Your task to perform on an android device: Check out the best rated electric trimmers on Lowe's Image 0: 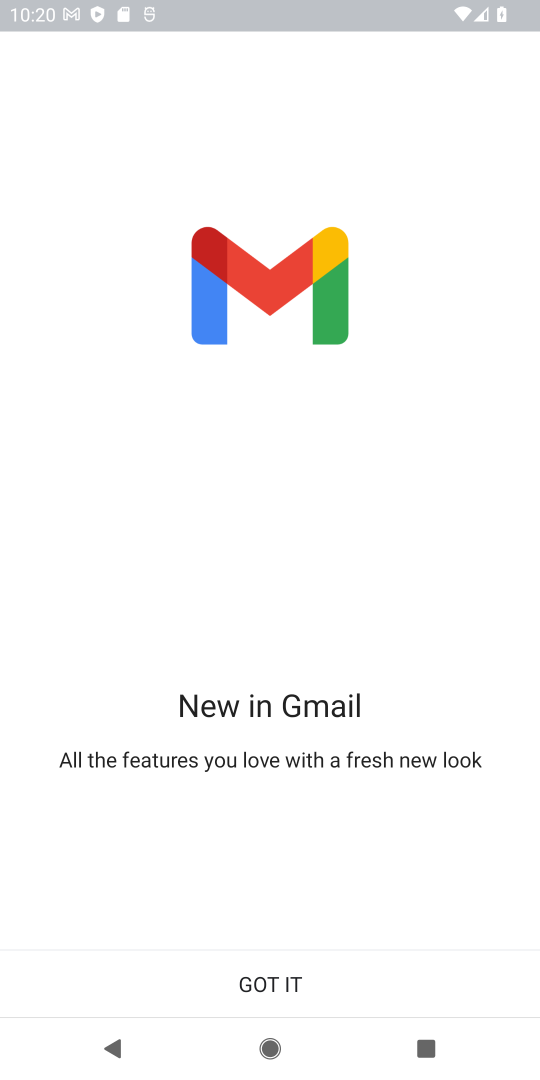
Step 0: press home button
Your task to perform on an android device: Check out the best rated electric trimmers on Lowe's Image 1: 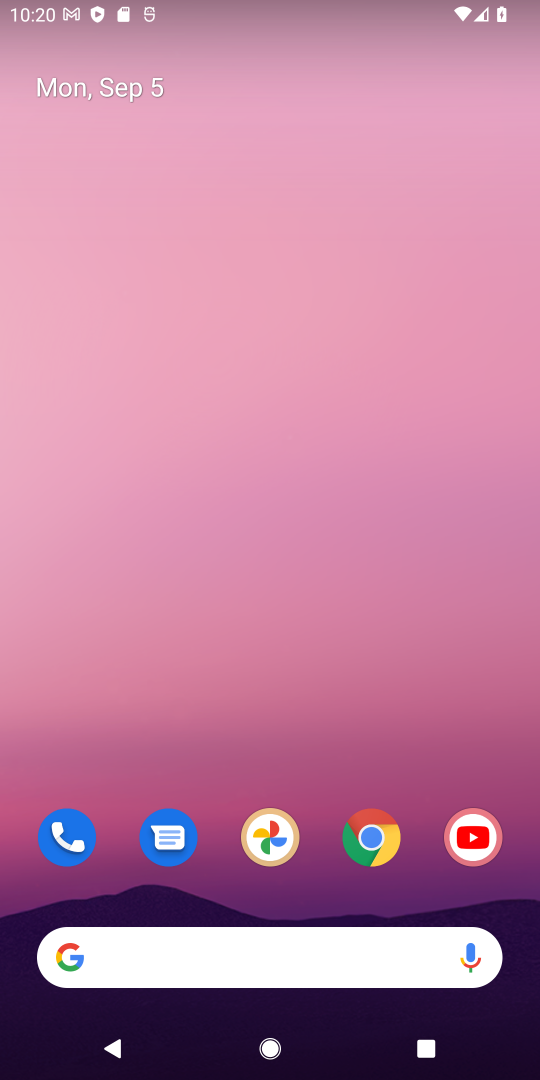
Step 1: drag from (337, 866) to (347, 81)
Your task to perform on an android device: Check out the best rated electric trimmers on Lowe's Image 2: 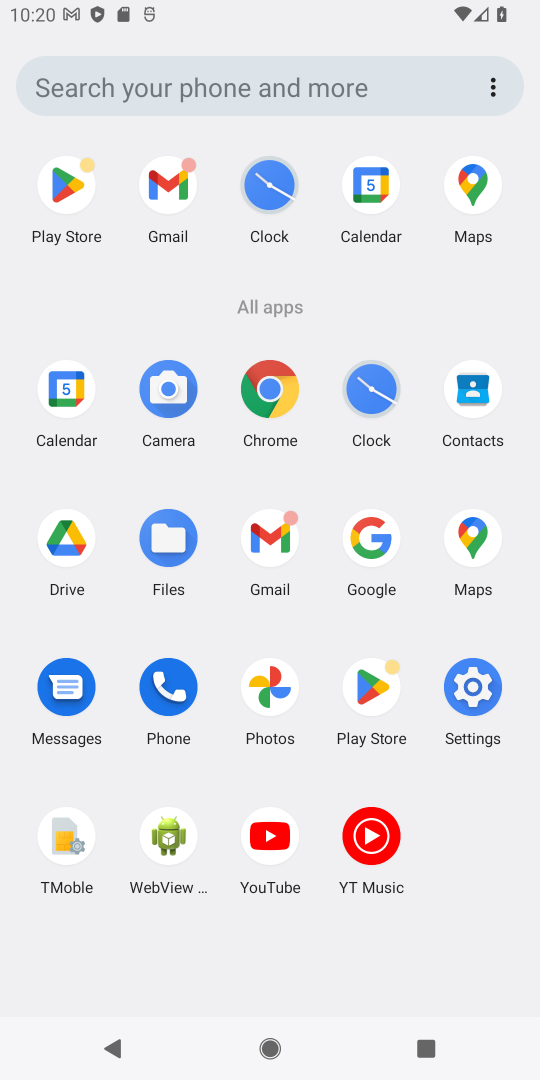
Step 2: click (268, 376)
Your task to perform on an android device: Check out the best rated electric trimmers on Lowe's Image 3: 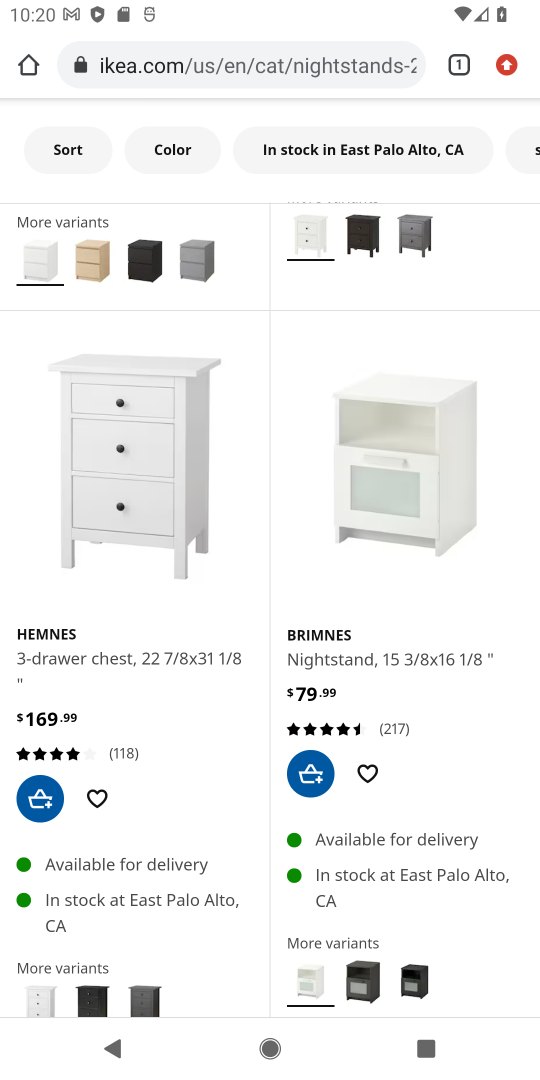
Step 3: drag from (267, 901) to (310, 152)
Your task to perform on an android device: Check out the best rated electric trimmers on Lowe's Image 4: 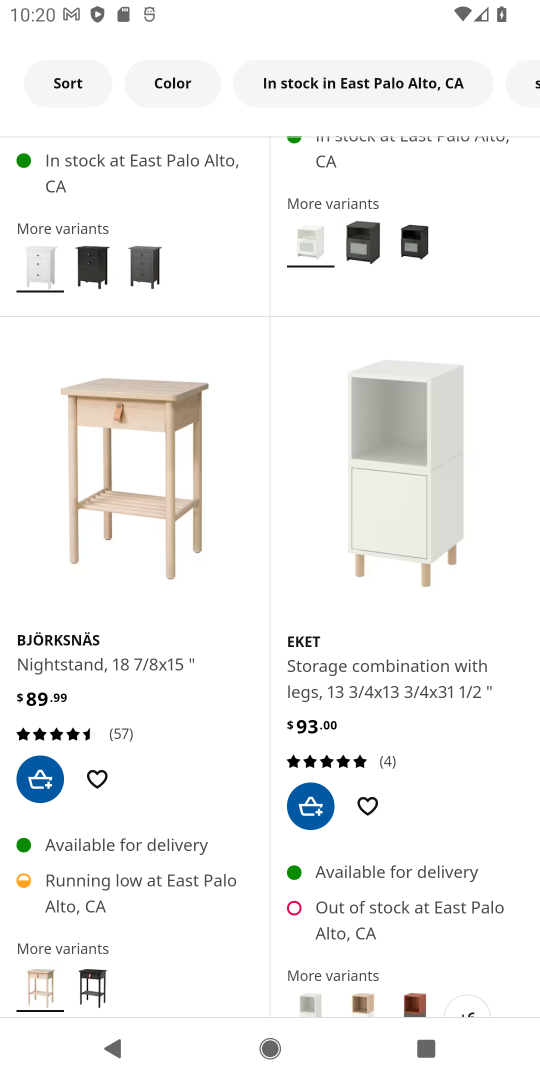
Step 4: drag from (259, 926) to (278, 175)
Your task to perform on an android device: Check out the best rated electric trimmers on Lowe's Image 5: 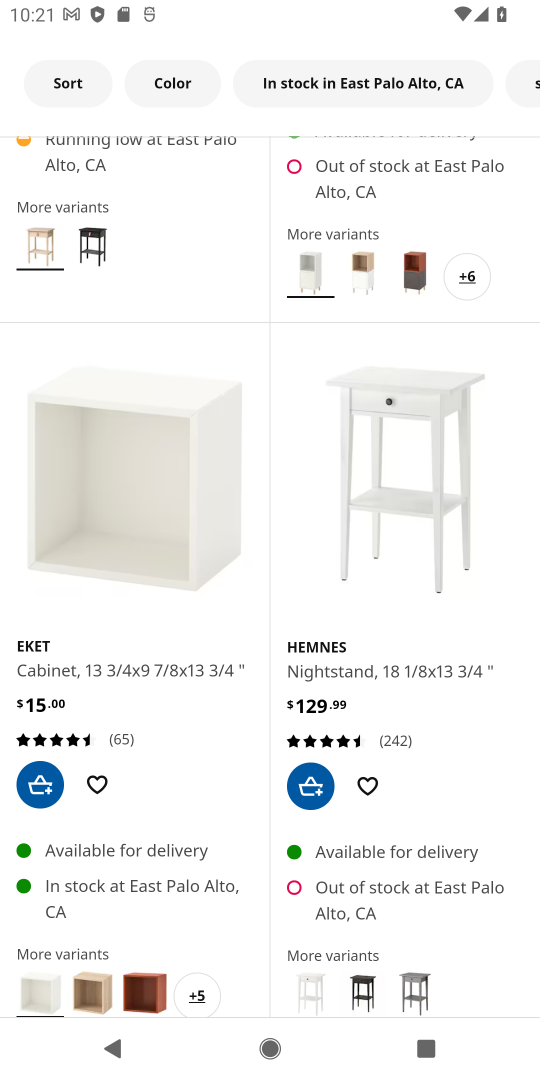
Step 5: drag from (271, 818) to (287, 373)
Your task to perform on an android device: Check out the best rated electric trimmers on Lowe's Image 6: 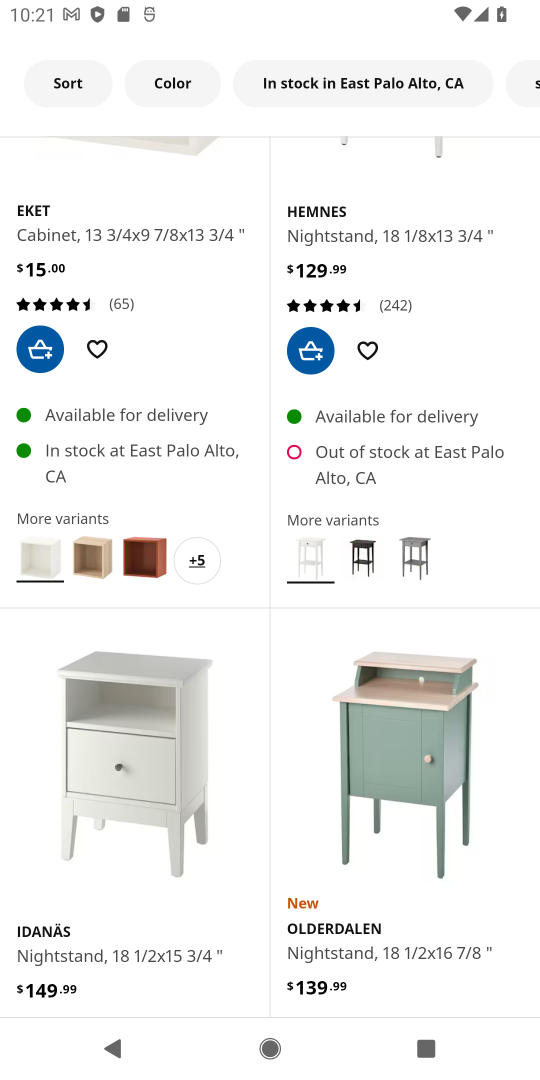
Step 6: drag from (232, 337) to (241, 733)
Your task to perform on an android device: Check out the best rated electric trimmers on Lowe's Image 7: 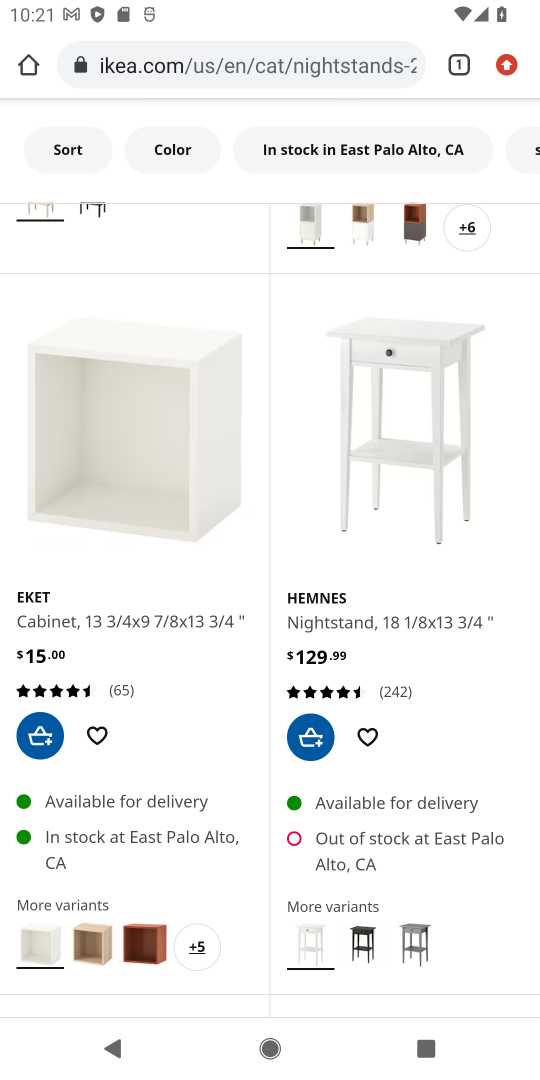
Step 7: click (266, 61)
Your task to perform on an android device: Check out the best rated electric trimmers on Lowe's Image 8: 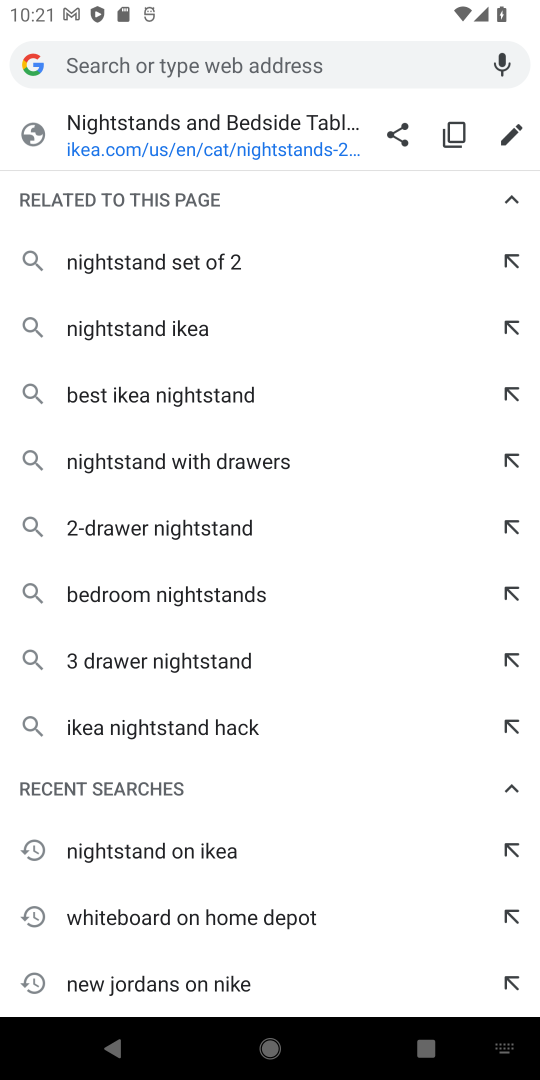
Step 8: type "best rated electric trimmers on Lowe's"
Your task to perform on an android device: Check out the best rated electric trimmers on Lowe's Image 9: 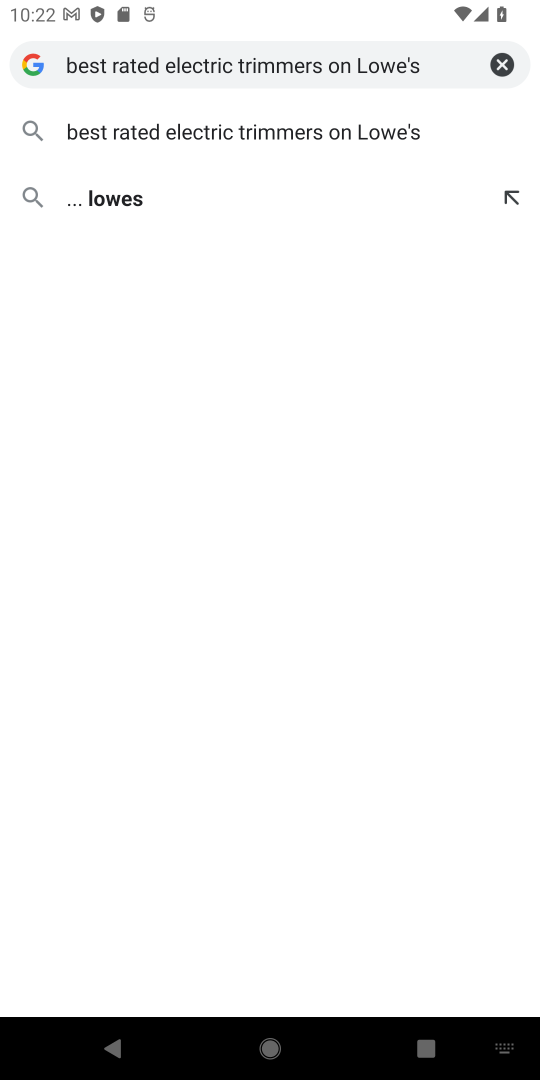
Step 9: click (267, 128)
Your task to perform on an android device: Check out the best rated electric trimmers on Lowe's Image 10: 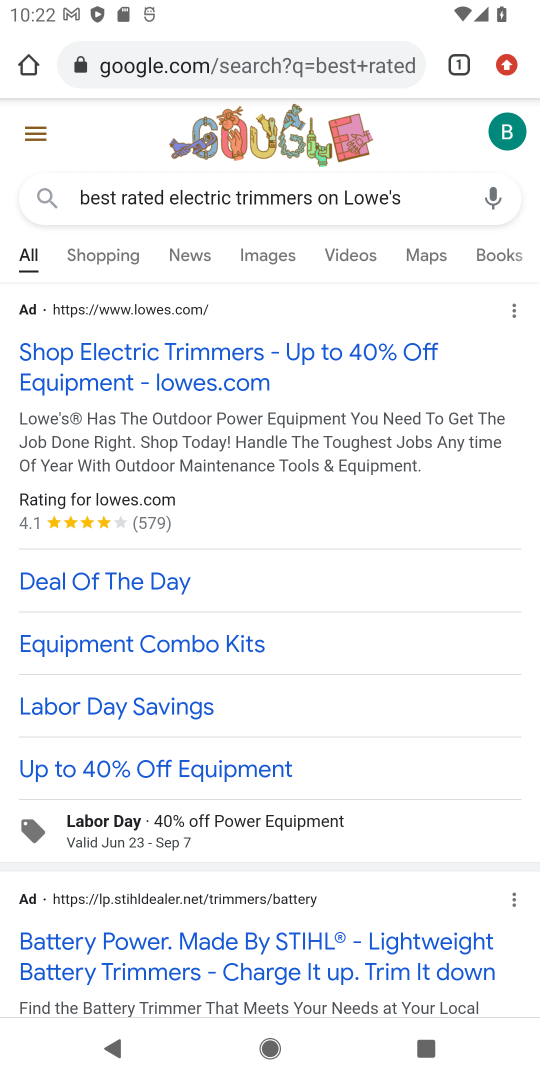
Step 10: drag from (391, 831) to (416, 739)
Your task to perform on an android device: Check out the best rated electric trimmers on Lowe's Image 11: 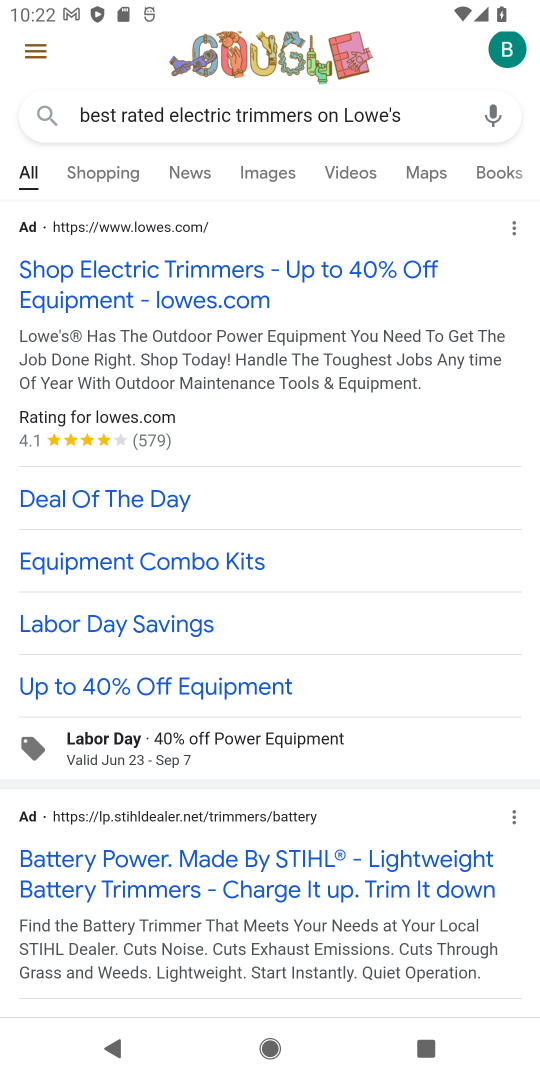
Step 11: click (230, 240)
Your task to perform on an android device: Check out the best rated electric trimmers on Lowe's Image 12: 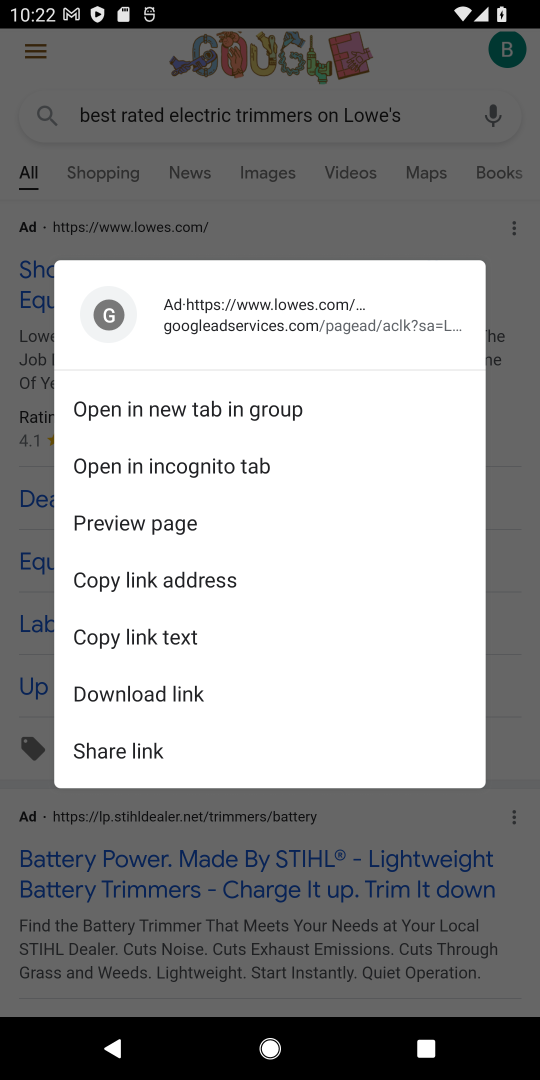
Step 12: click (179, 221)
Your task to perform on an android device: Check out the best rated electric trimmers on Lowe's Image 13: 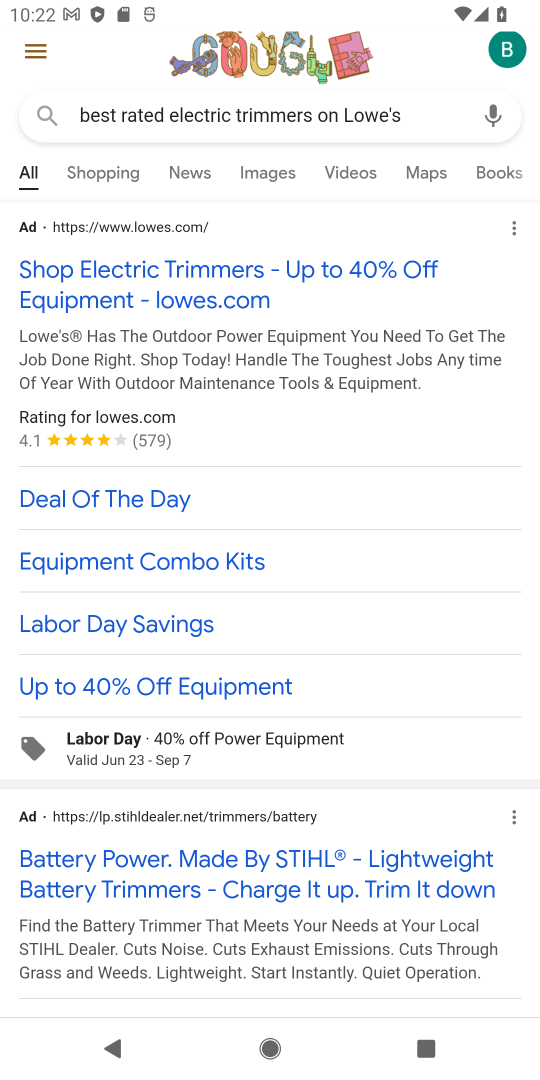
Step 13: click (226, 300)
Your task to perform on an android device: Check out the best rated electric trimmers on Lowe's Image 14: 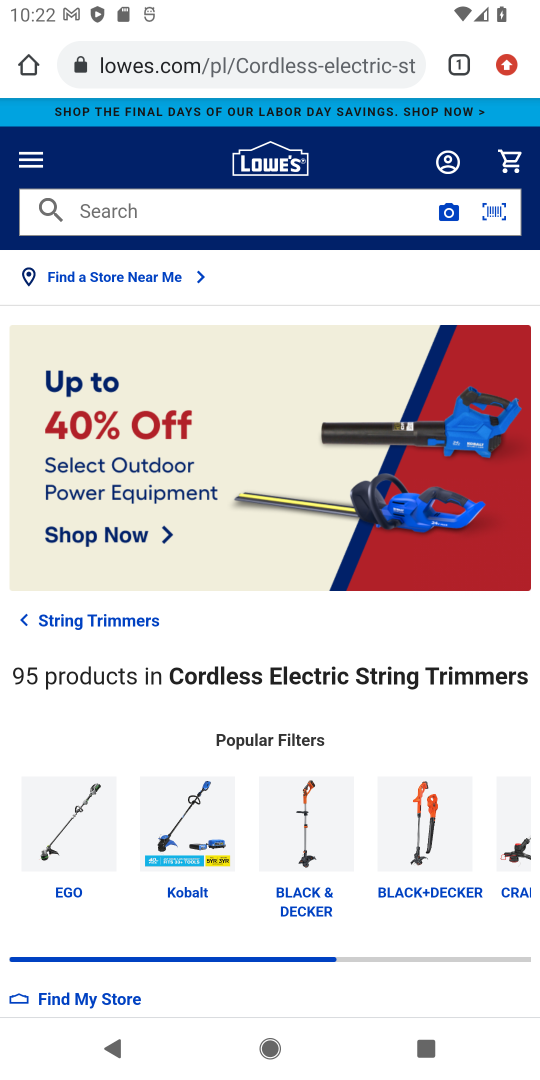
Step 14: task complete